Your task to perform on an android device: turn on location history Image 0: 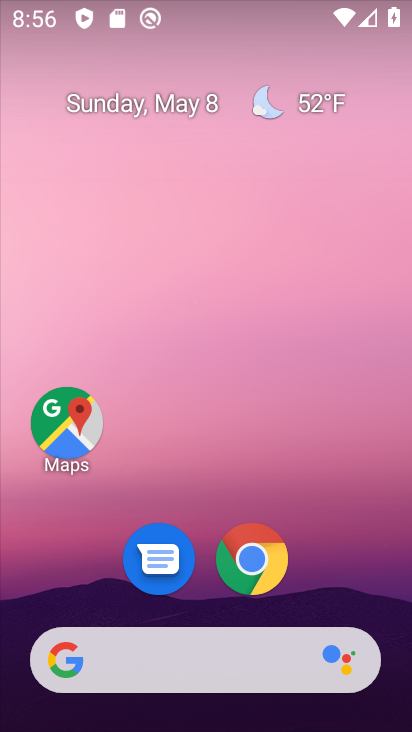
Step 0: drag from (325, 585) to (251, 30)
Your task to perform on an android device: turn on location history Image 1: 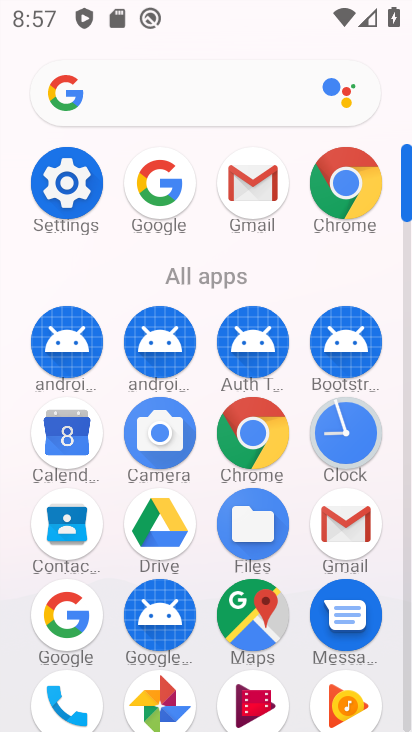
Step 1: click (70, 200)
Your task to perform on an android device: turn on location history Image 2: 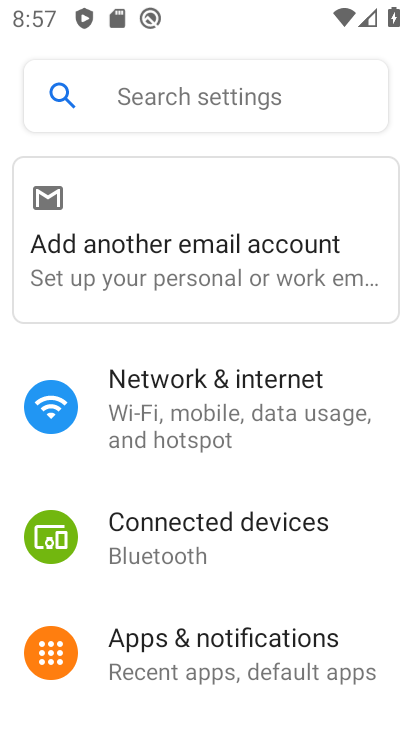
Step 2: drag from (236, 566) to (190, 228)
Your task to perform on an android device: turn on location history Image 3: 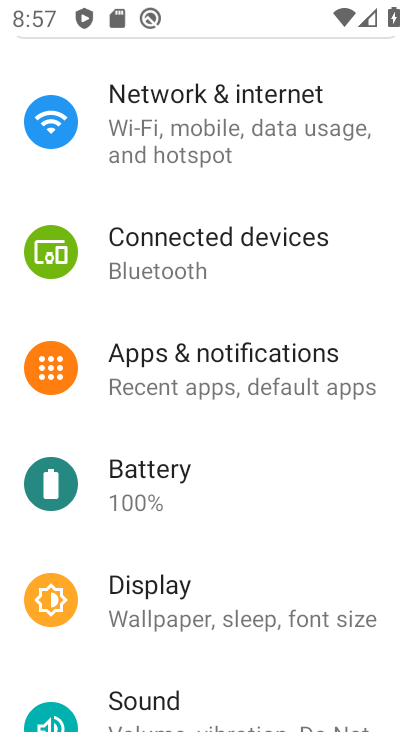
Step 3: drag from (215, 628) to (191, 324)
Your task to perform on an android device: turn on location history Image 4: 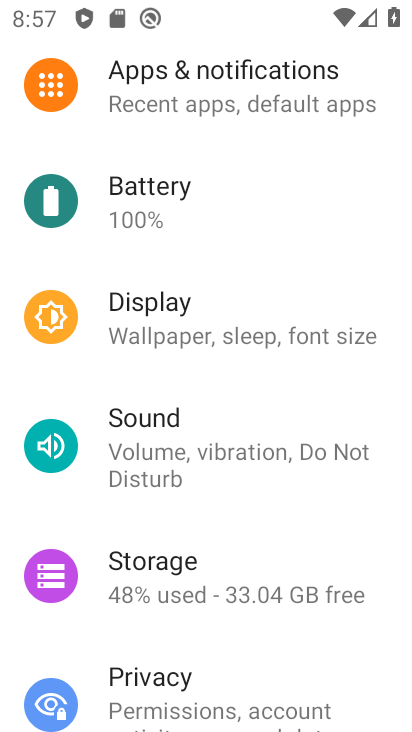
Step 4: drag from (192, 325) to (170, 571)
Your task to perform on an android device: turn on location history Image 5: 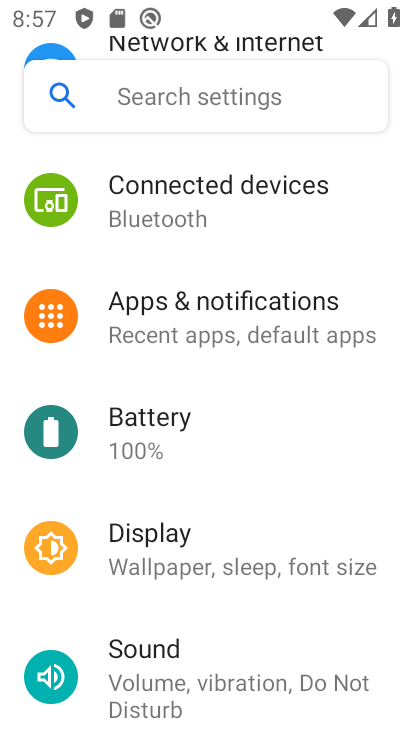
Step 5: drag from (195, 623) to (166, 312)
Your task to perform on an android device: turn on location history Image 6: 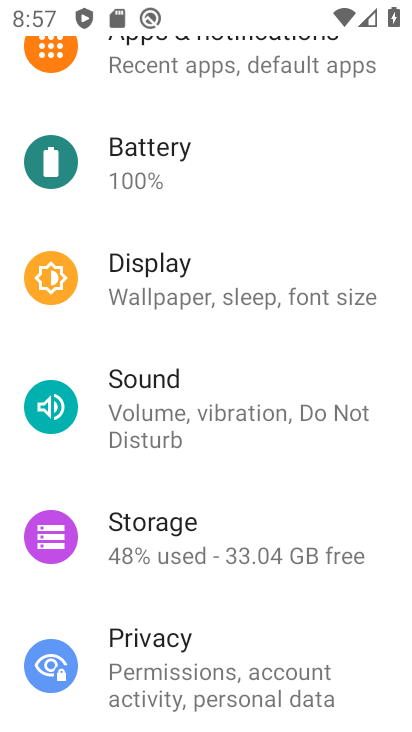
Step 6: drag from (186, 643) to (177, 279)
Your task to perform on an android device: turn on location history Image 7: 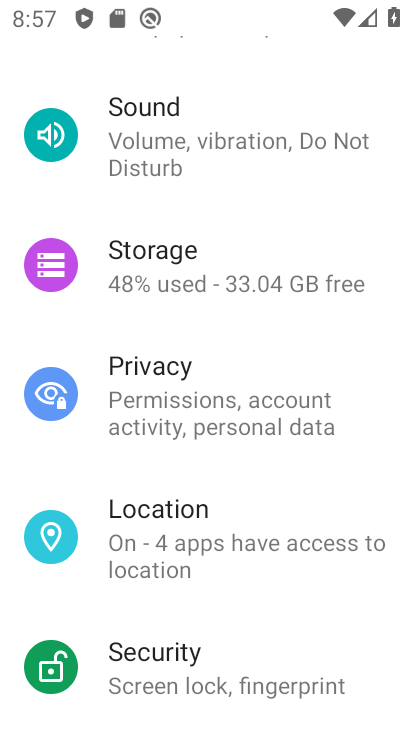
Step 7: click (155, 576)
Your task to perform on an android device: turn on location history Image 8: 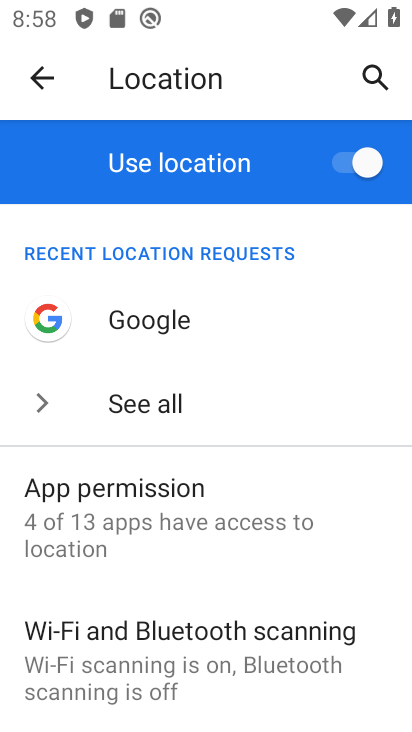
Step 8: drag from (221, 607) to (182, 209)
Your task to perform on an android device: turn on location history Image 9: 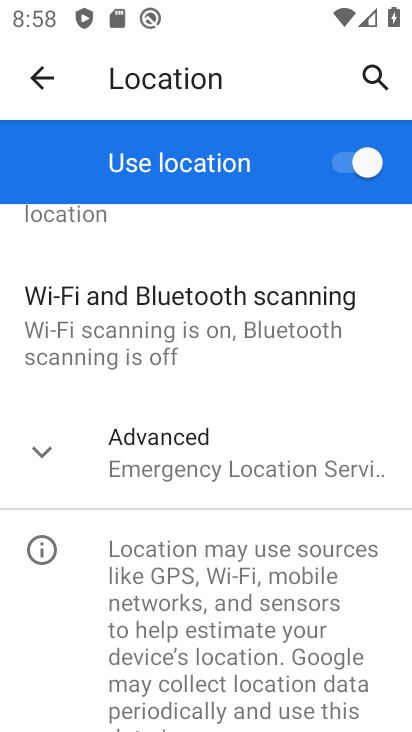
Step 9: click (197, 469)
Your task to perform on an android device: turn on location history Image 10: 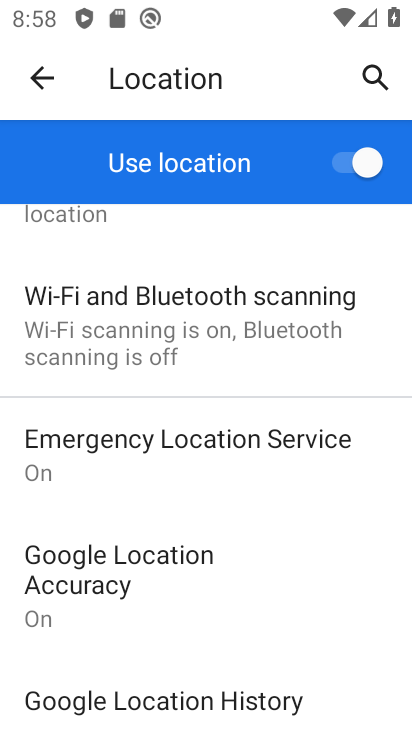
Step 10: click (227, 707)
Your task to perform on an android device: turn on location history Image 11: 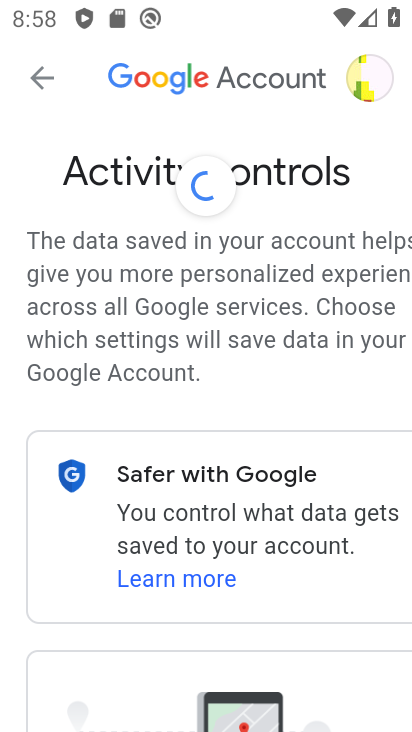
Step 11: task complete